Your task to perform on an android device: open app "Pinterest" (install if not already installed) Image 0: 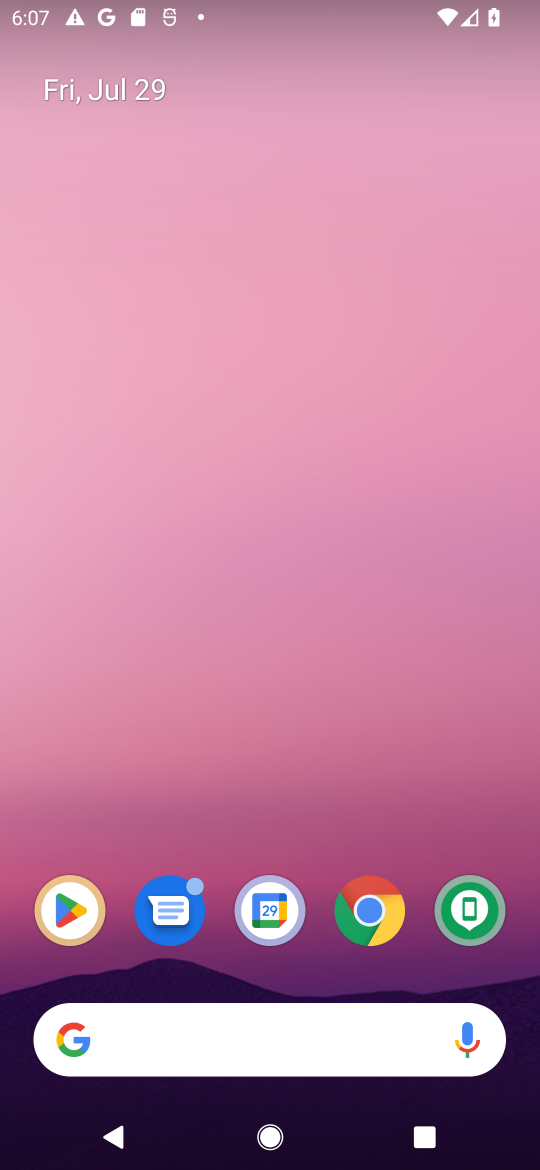
Step 0: drag from (285, 995) to (220, 364)
Your task to perform on an android device: open app "Pinterest" (install if not already installed) Image 1: 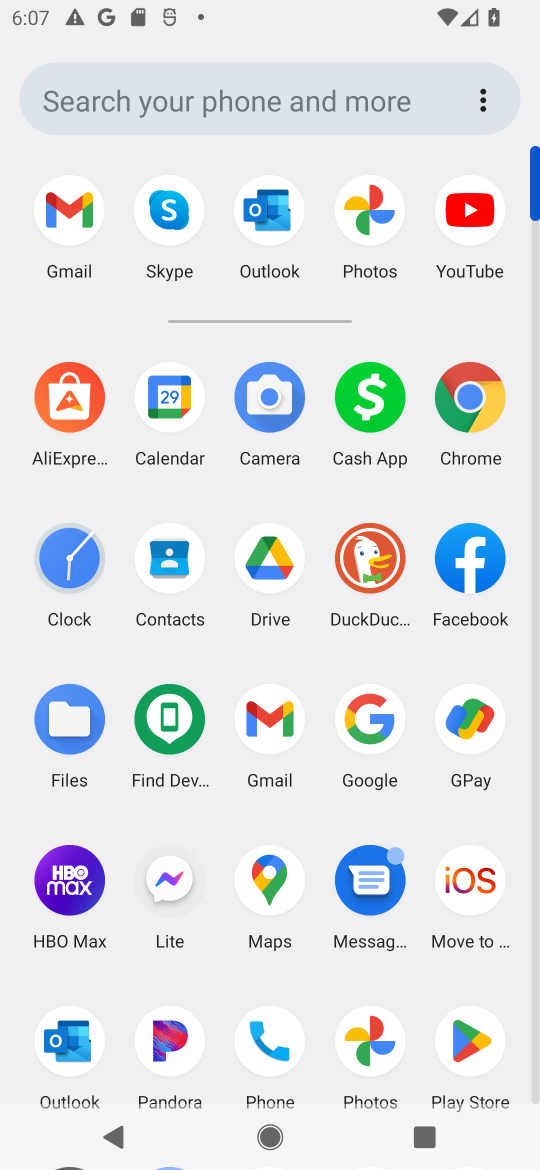
Step 1: click (464, 1043)
Your task to perform on an android device: open app "Pinterest" (install if not already installed) Image 2: 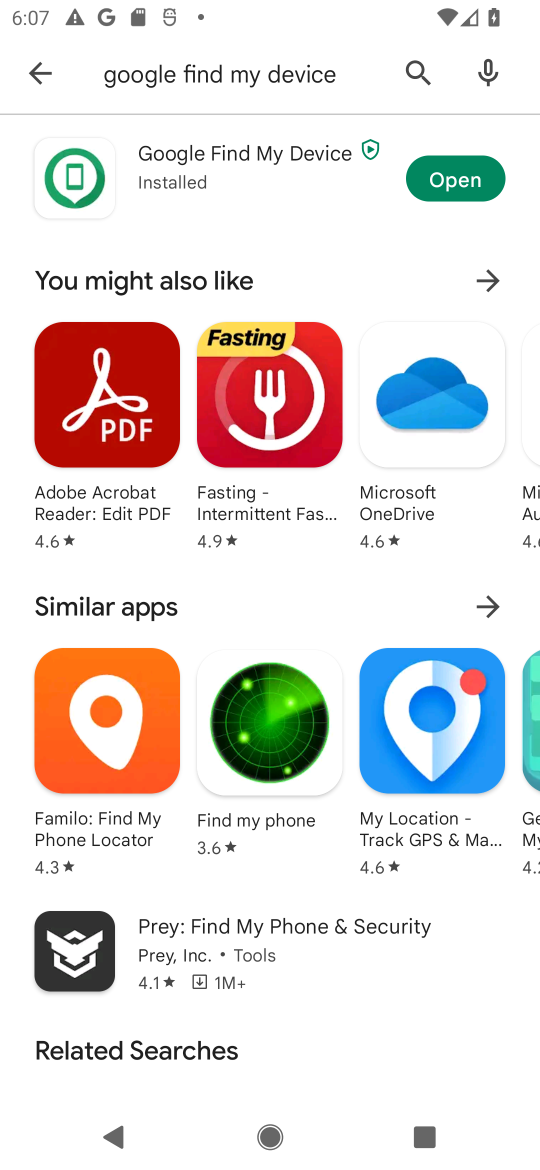
Step 2: click (418, 68)
Your task to perform on an android device: open app "Pinterest" (install if not already installed) Image 3: 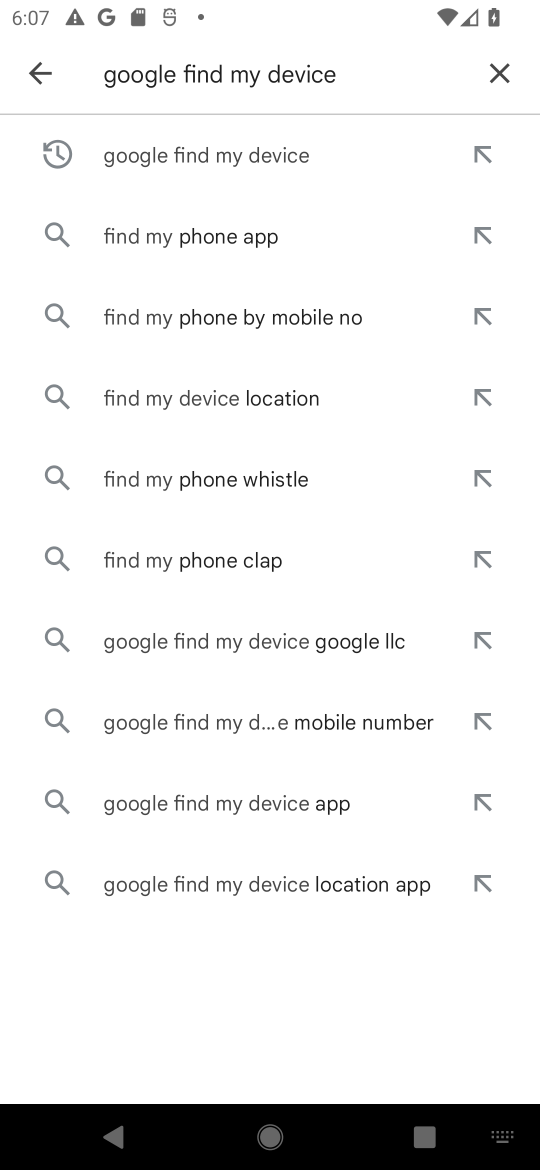
Step 3: click (503, 61)
Your task to perform on an android device: open app "Pinterest" (install if not already installed) Image 4: 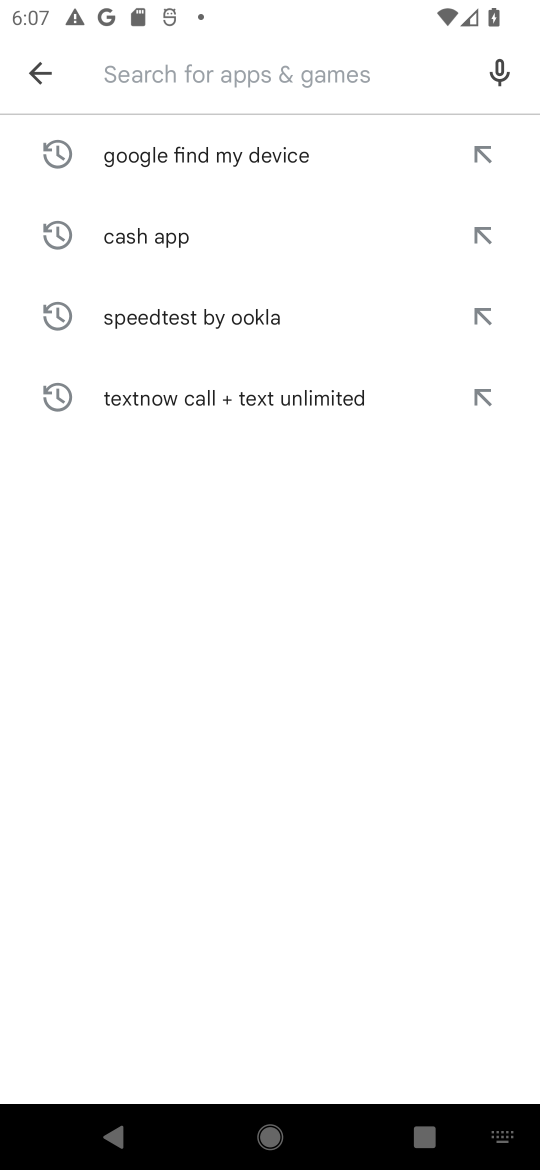
Step 4: type "Pinterest"
Your task to perform on an android device: open app "Pinterest" (install if not already installed) Image 5: 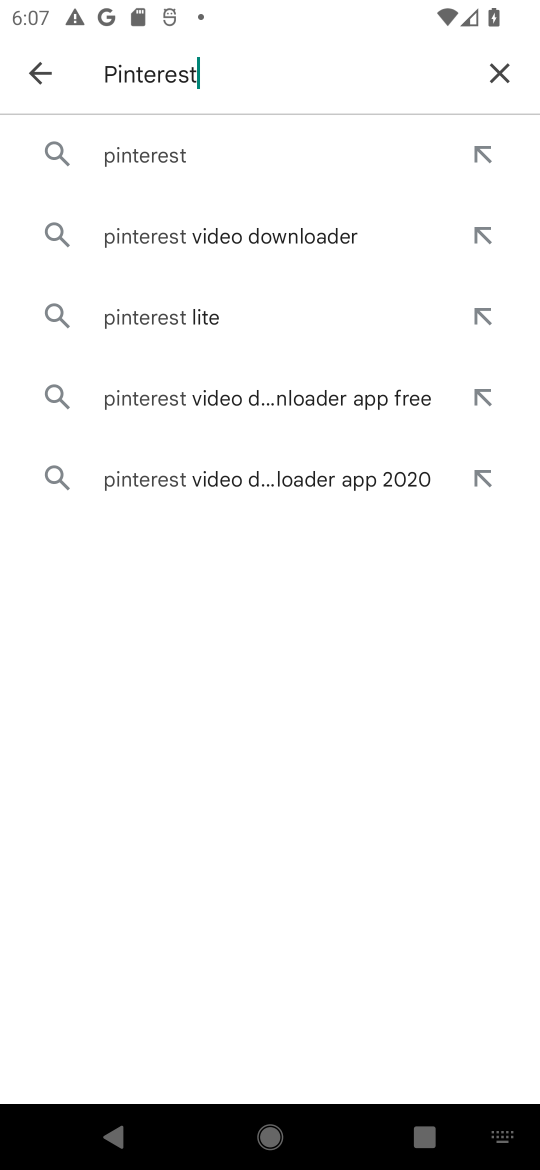
Step 5: click (169, 153)
Your task to perform on an android device: open app "Pinterest" (install if not already installed) Image 6: 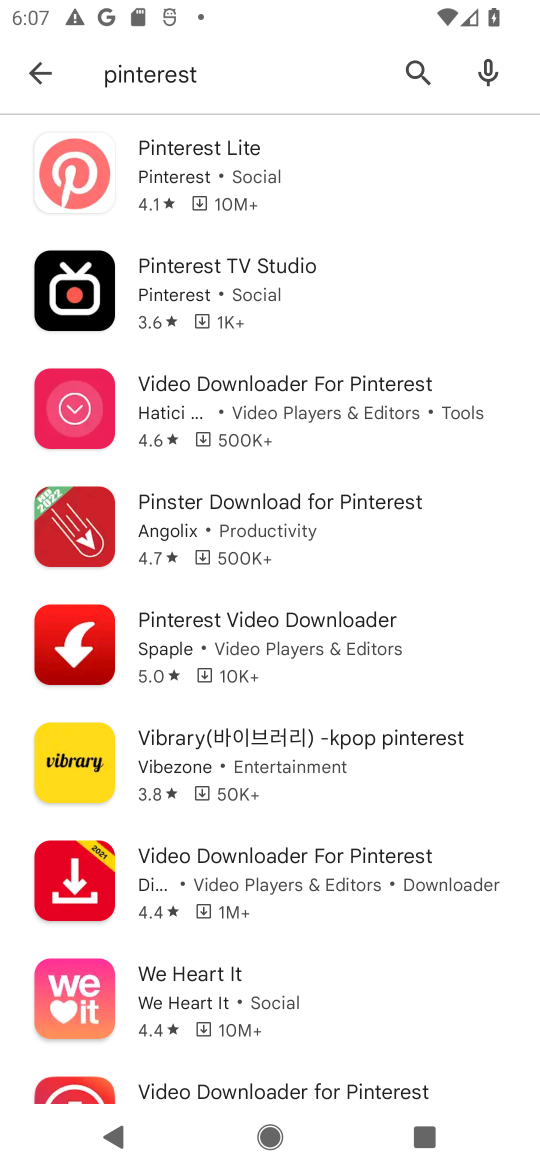
Step 6: click (213, 170)
Your task to perform on an android device: open app "Pinterest" (install if not already installed) Image 7: 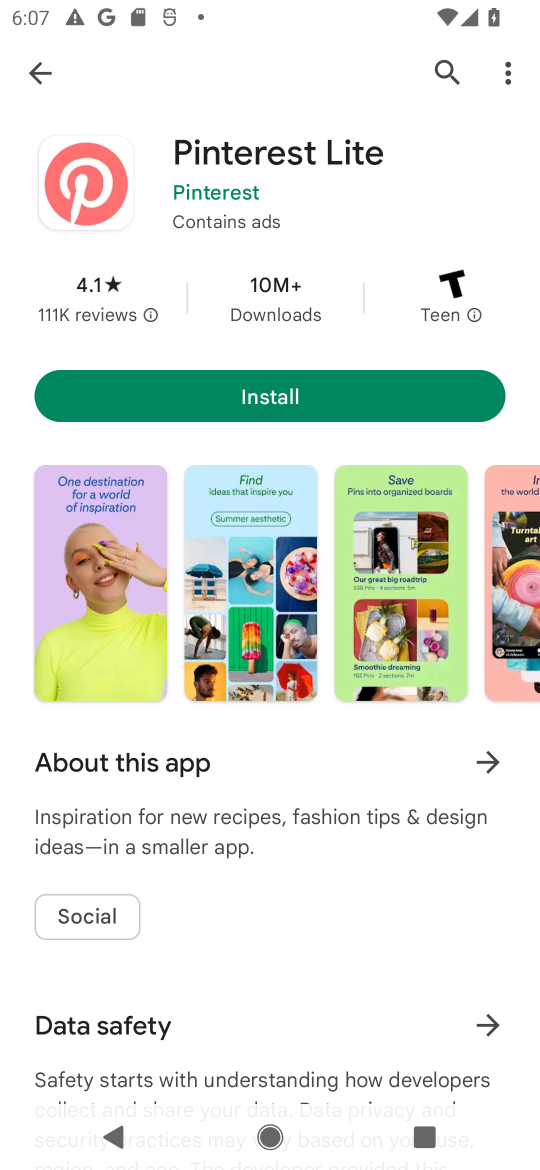
Step 7: click (297, 386)
Your task to perform on an android device: open app "Pinterest" (install if not already installed) Image 8: 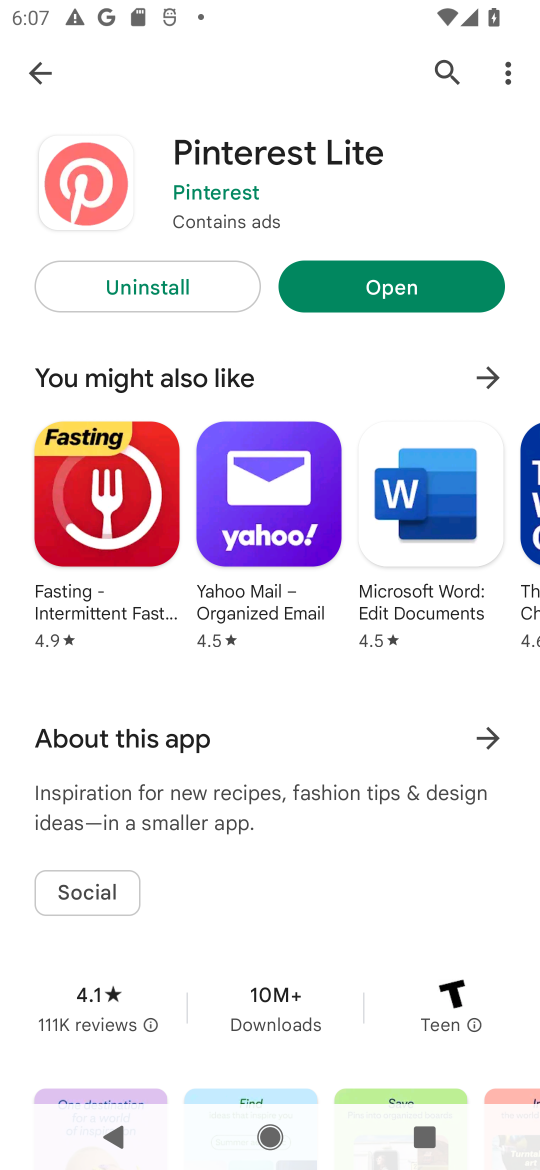
Step 8: task complete